Your task to perform on an android device: Go to CNN.com Image 0: 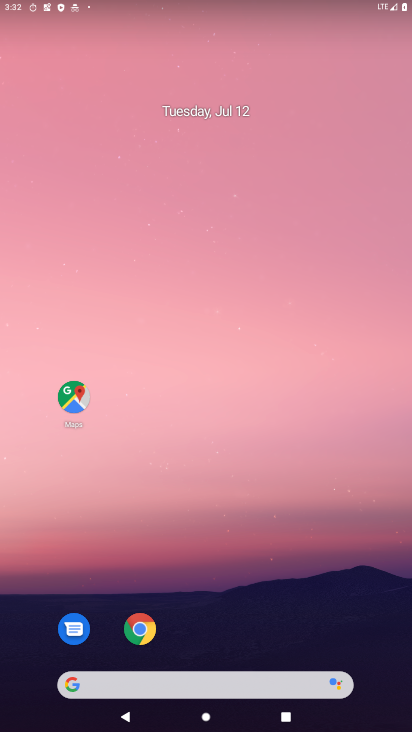
Step 0: click (143, 620)
Your task to perform on an android device: Go to CNN.com Image 1: 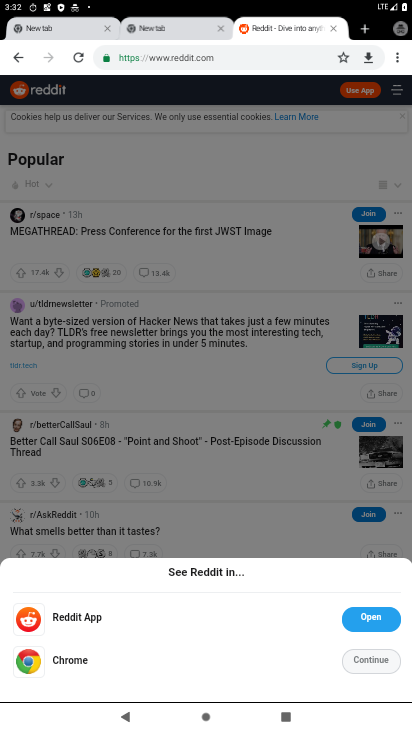
Step 1: click (184, 55)
Your task to perform on an android device: Go to CNN.com Image 2: 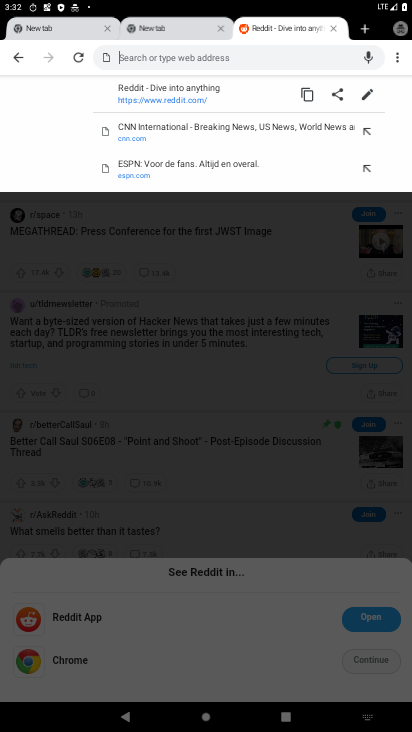
Step 2: type " CNN.com"
Your task to perform on an android device: Go to CNN.com Image 3: 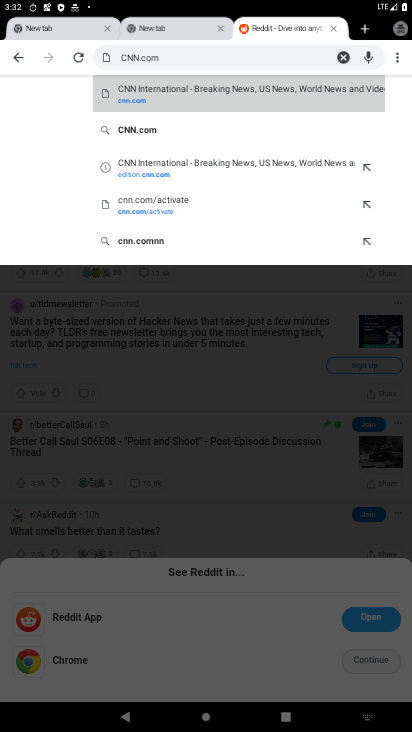
Step 3: click (130, 96)
Your task to perform on an android device: Go to CNN.com Image 4: 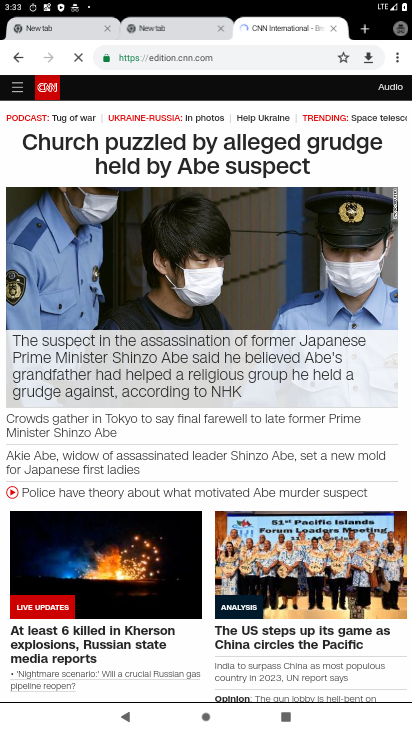
Step 4: task complete